Your task to perform on an android device: find photos in the google photos app Image 0: 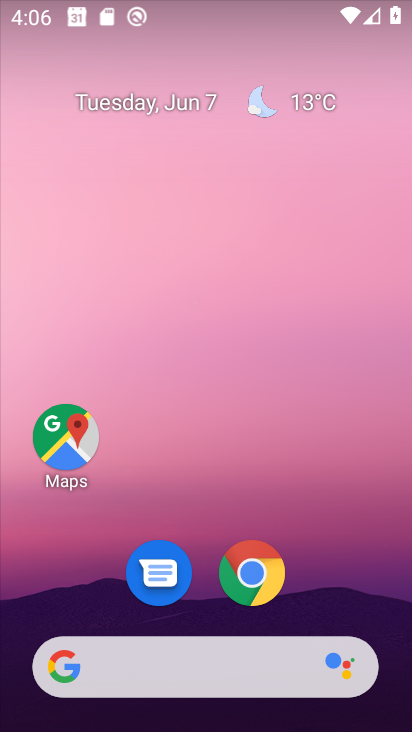
Step 0: press home button
Your task to perform on an android device: find photos in the google photos app Image 1: 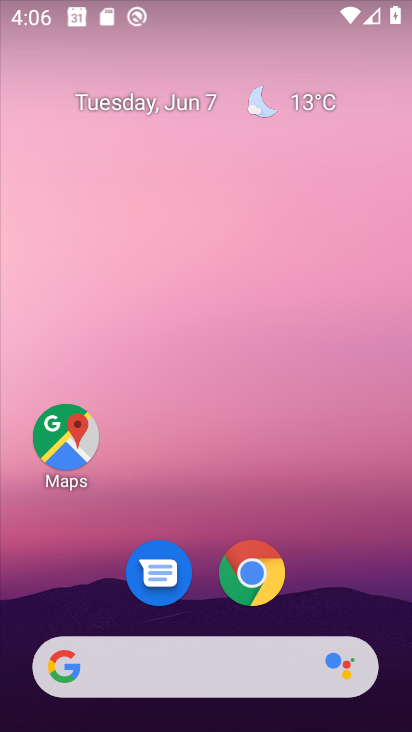
Step 1: drag from (327, 707) to (251, 213)
Your task to perform on an android device: find photos in the google photos app Image 2: 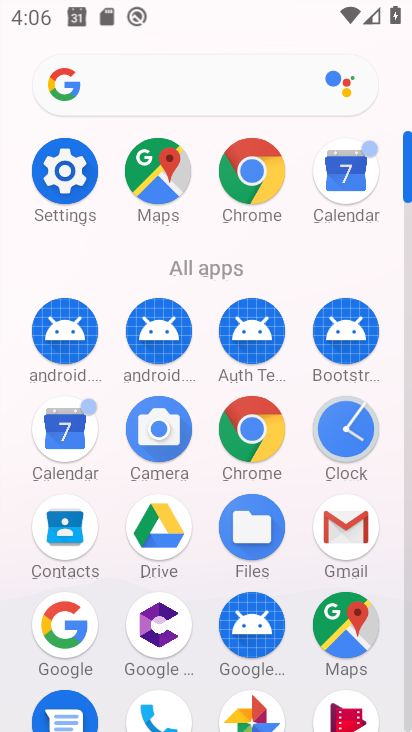
Step 2: click (244, 718)
Your task to perform on an android device: find photos in the google photos app Image 3: 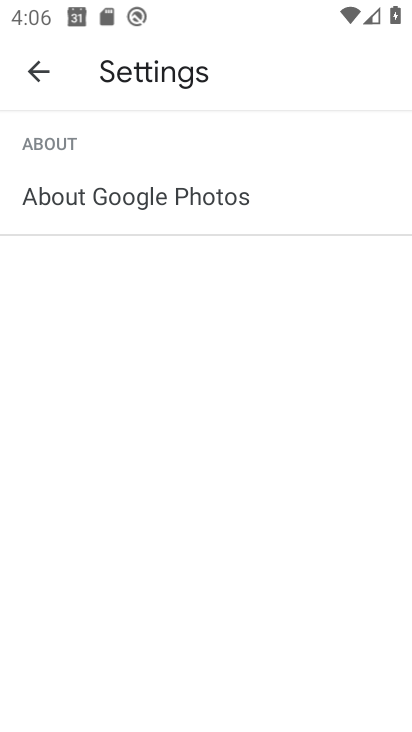
Step 3: click (28, 58)
Your task to perform on an android device: find photos in the google photos app Image 4: 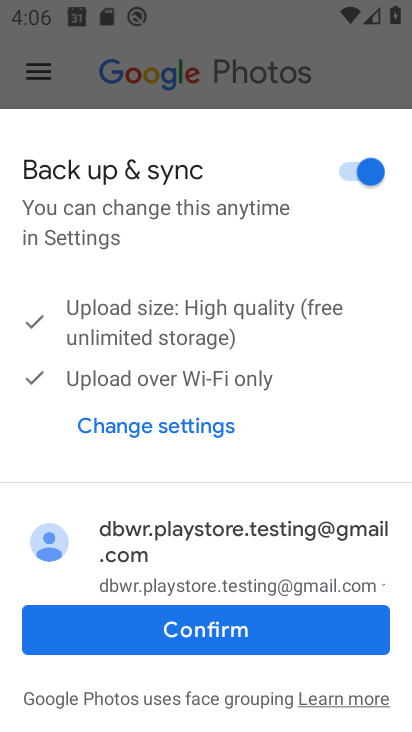
Step 4: click (257, 639)
Your task to perform on an android device: find photos in the google photos app Image 5: 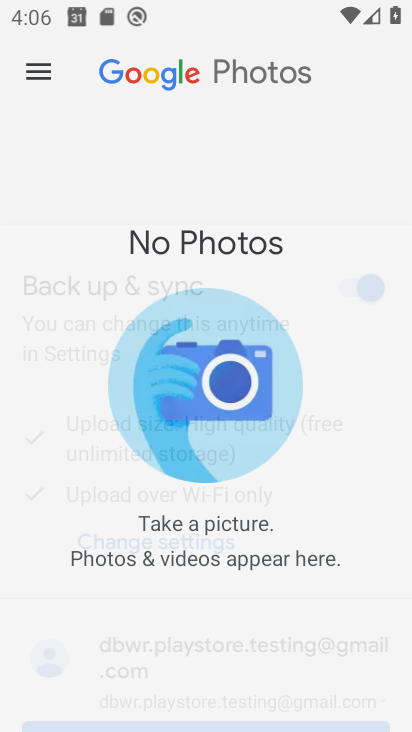
Step 5: click (257, 639)
Your task to perform on an android device: find photos in the google photos app Image 6: 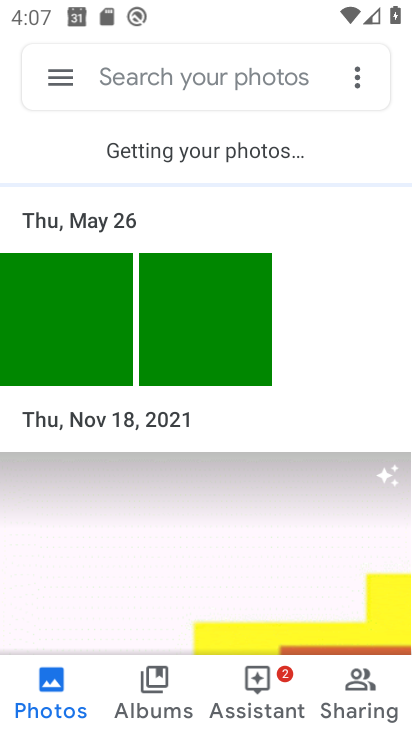
Step 6: task complete